Your task to perform on an android device: toggle notification dots Image 0: 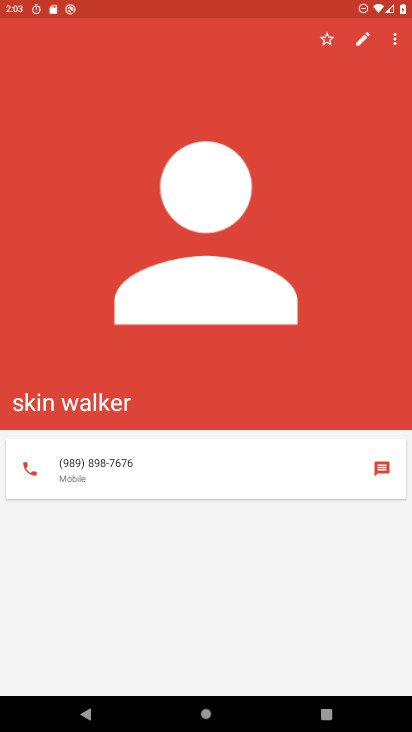
Step 0: press home button
Your task to perform on an android device: toggle notification dots Image 1: 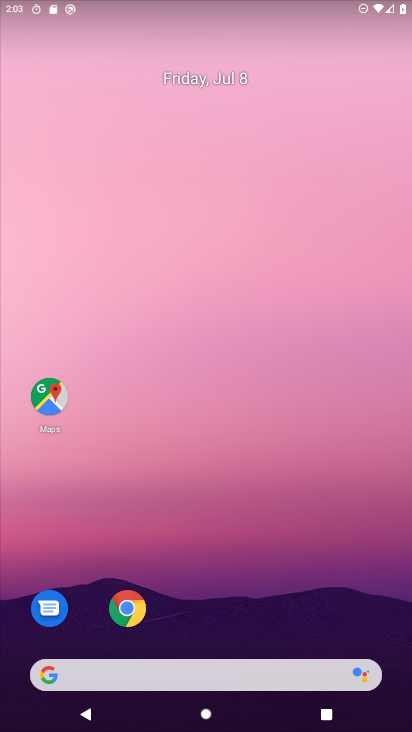
Step 1: drag from (240, 705) to (234, 104)
Your task to perform on an android device: toggle notification dots Image 2: 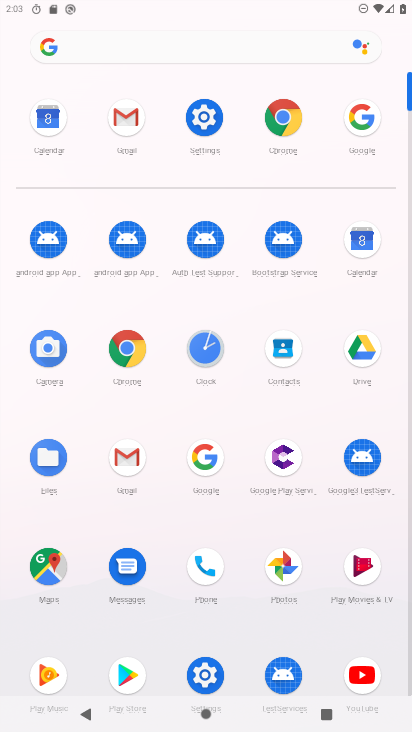
Step 2: click (208, 114)
Your task to perform on an android device: toggle notification dots Image 3: 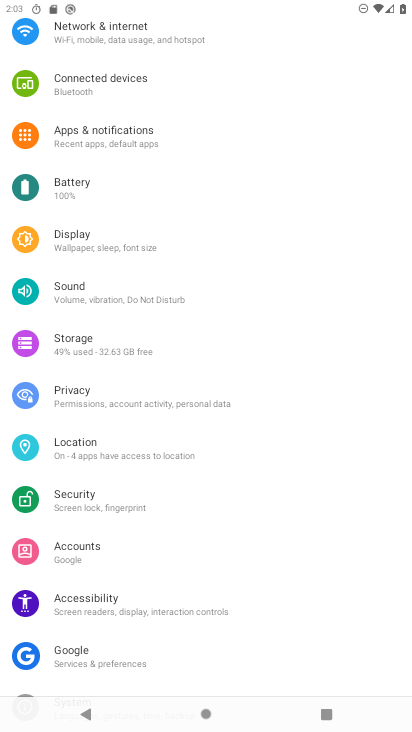
Step 3: click (117, 130)
Your task to perform on an android device: toggle notification dots Image 4: 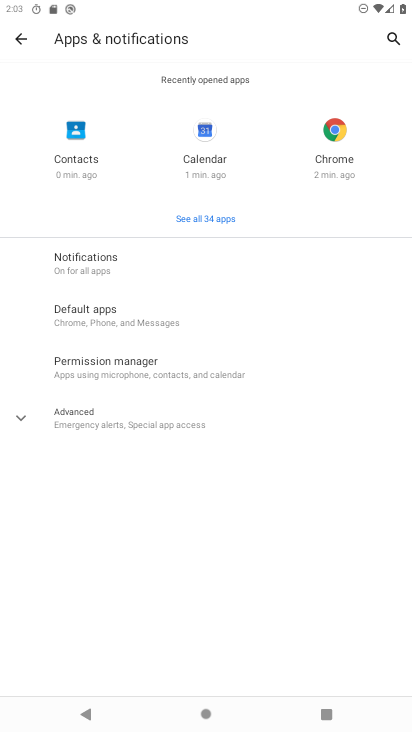
Step 4: click (81, 259)
Your task to perform on an android device: toggle notification dots Image 5: 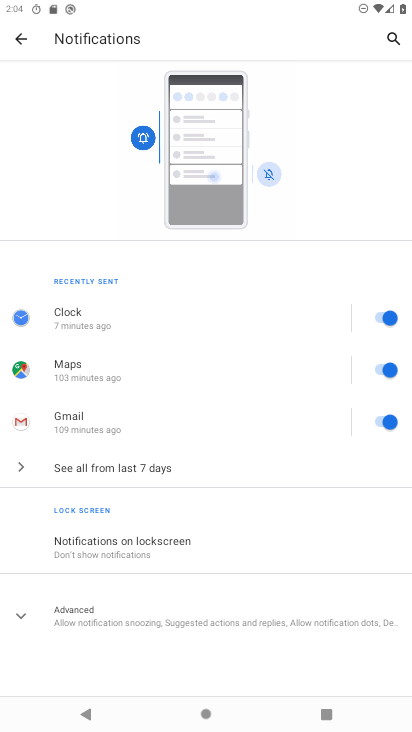
Step 5: click (80, 609)
Your task to perform on an android device: toggle notification dots Image 6: 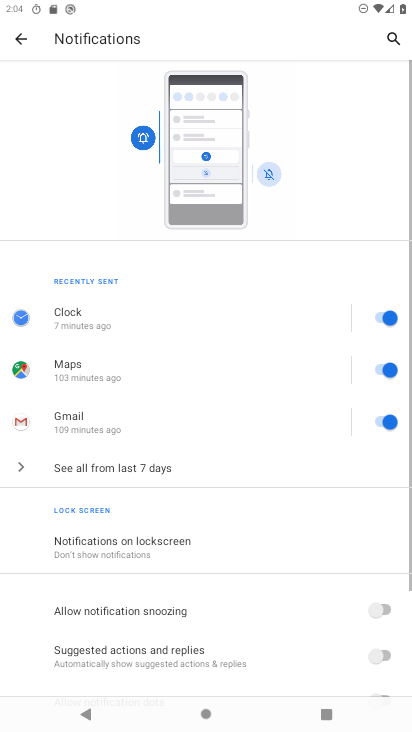
Step 6: drag from (279, 651) to (257, 343)
Your task to perform on an android device: toggle notification dots Image 7: 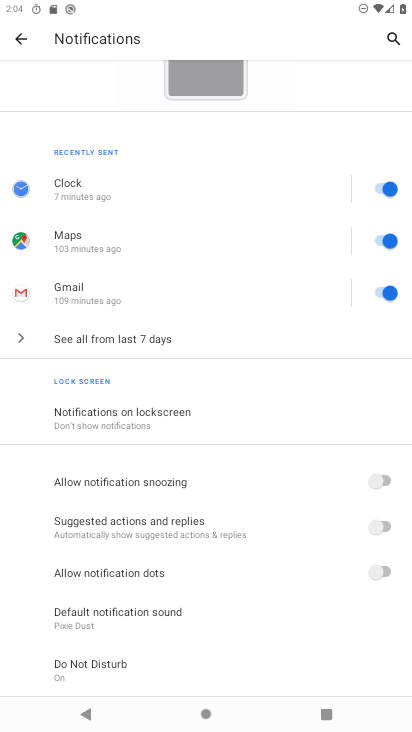
Step 7: click (386, 565)
Your task to perform on an android device: toggle notification dots Image 8: 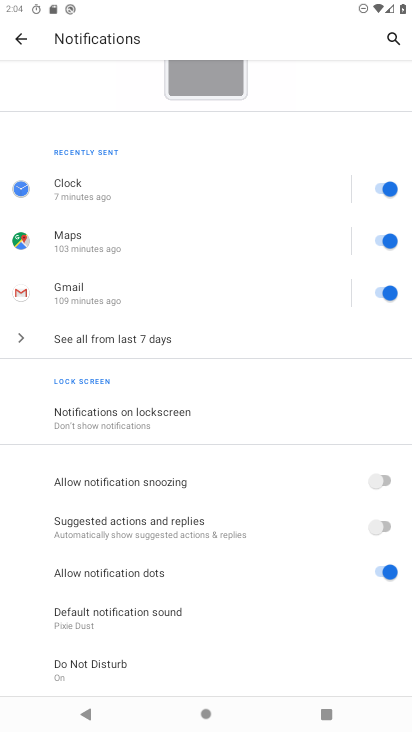
Step 8: task complete